Your task to perform on an android device: turn off wifi Image 0: 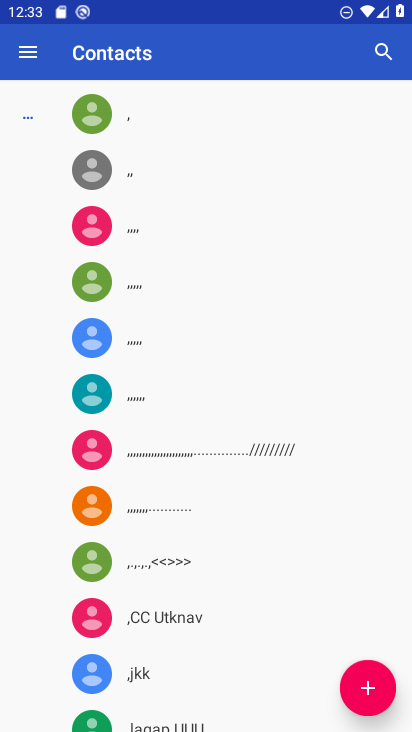
Step 0: press home button
Your task to perform on an android device: turn off wifi Image 1: 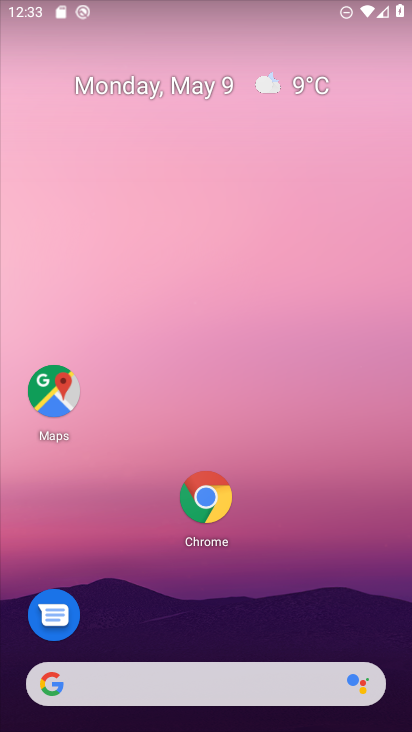
Step 1: drag from (303, 581) to (250, 99)
Your task to perform on an android device: turn off wifi Image 2: 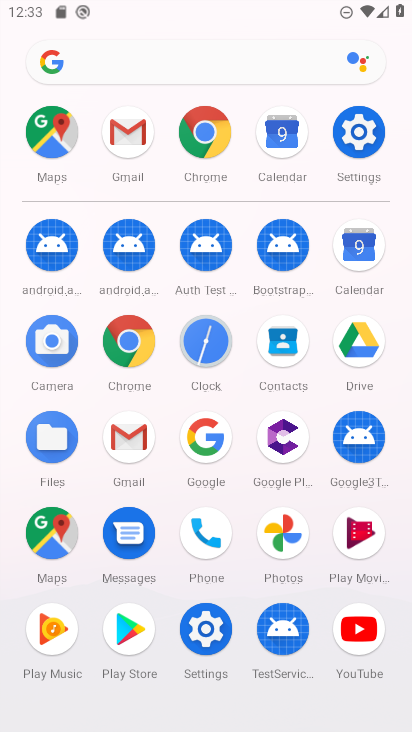
Step 2: click (367, 139)
Your task to perform on an android device: turn off wifi Image 3: 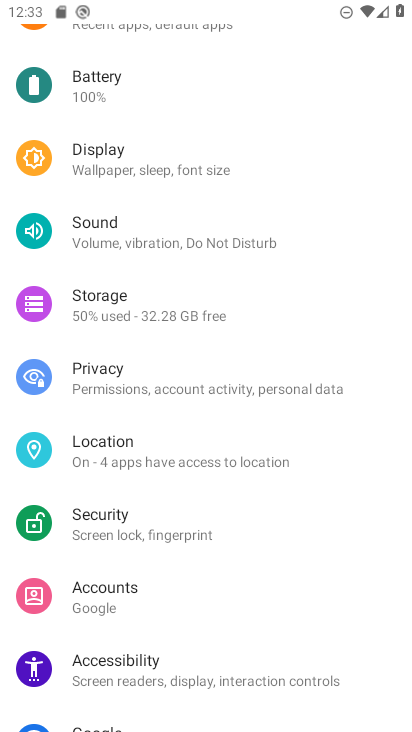
Step 3: drag from (215, 95) to (205, 580)
Your task to perform on an android device: turn off wifi Image 4: 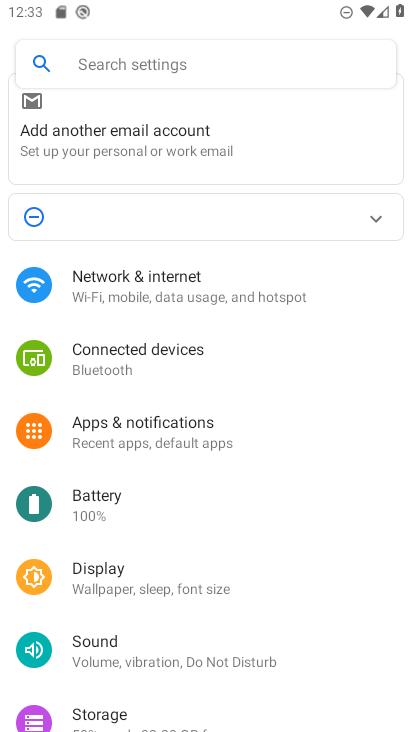
Step 4: click (160, 292)
Your task to perform on an android device: turn off wifi Image 5: 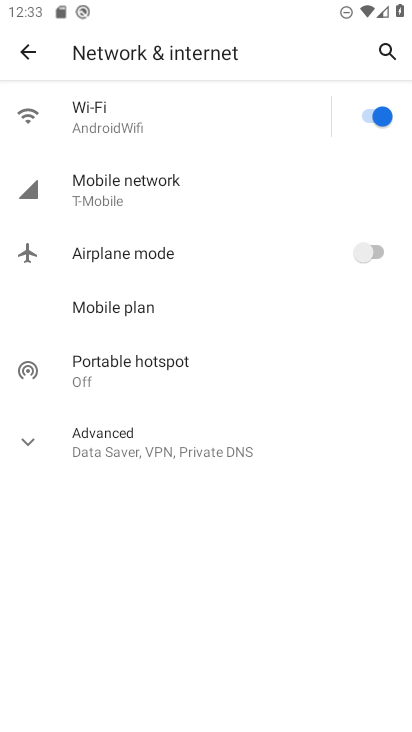
Step 5: click (364, 117)
Your task to perform on an android device: turn off wifi Image 6: 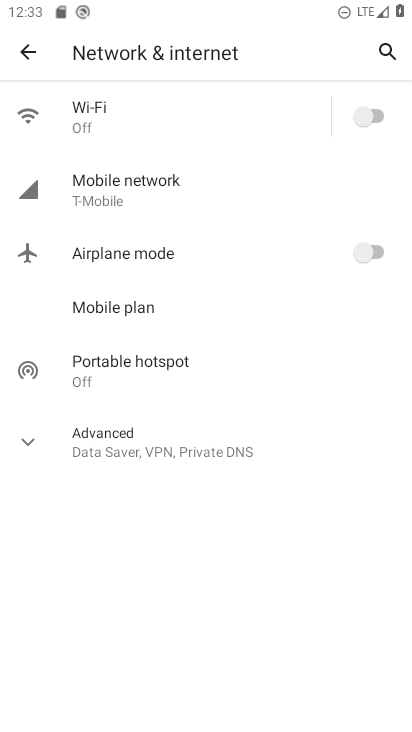
Step 6: task complete